Your task to perform on an android device: add a contact Image 0: 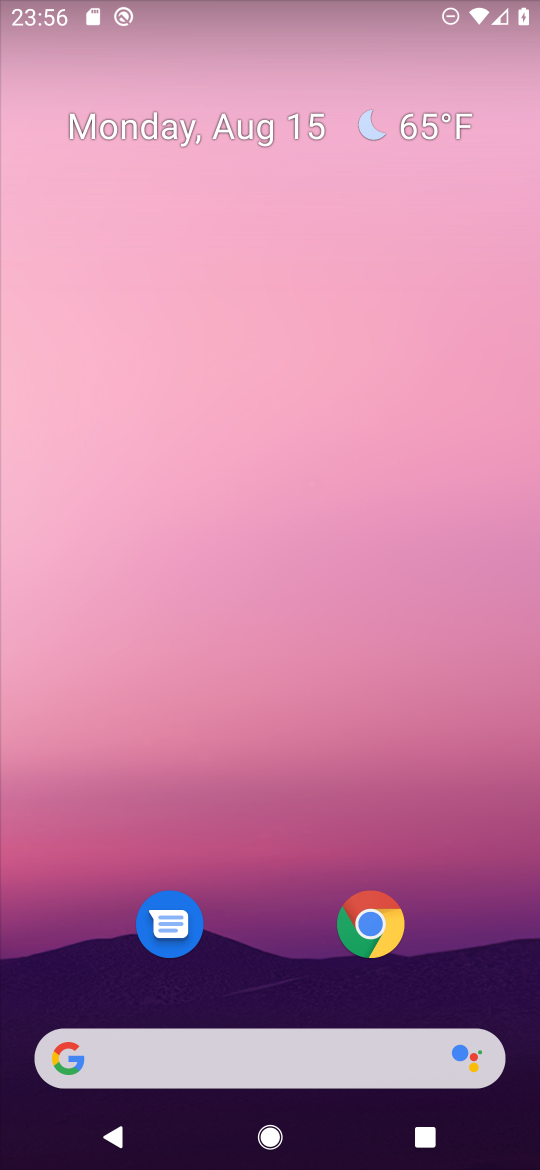
Step 0: drag from (281, 928) to (294, 95)
Your task to perform on an android device: add a contact Image 1: 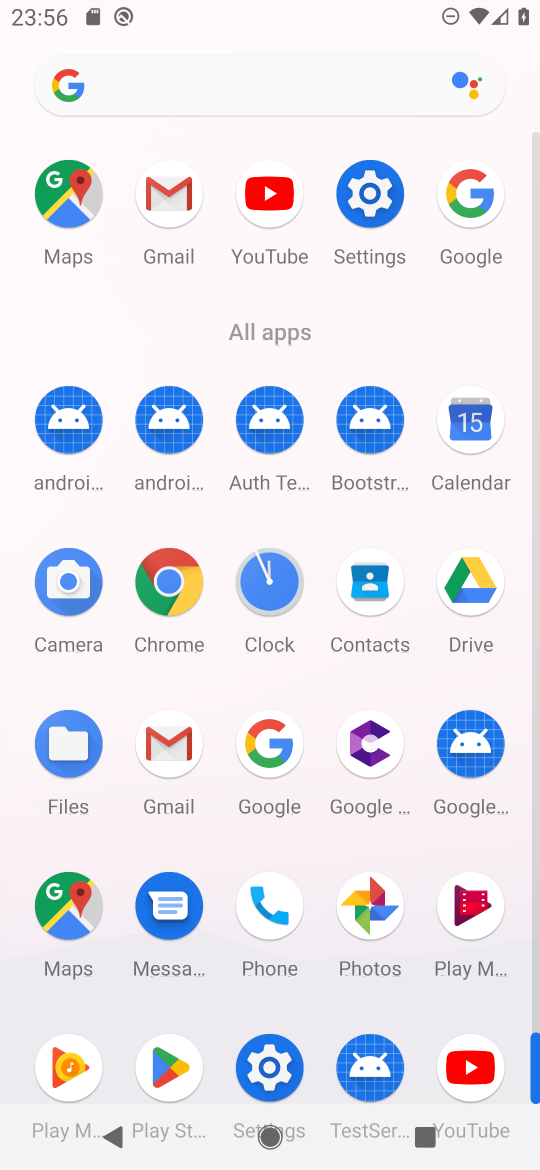
Step 1: click (371, 586)
Your task to perform on an android device: add a contact Image 2: 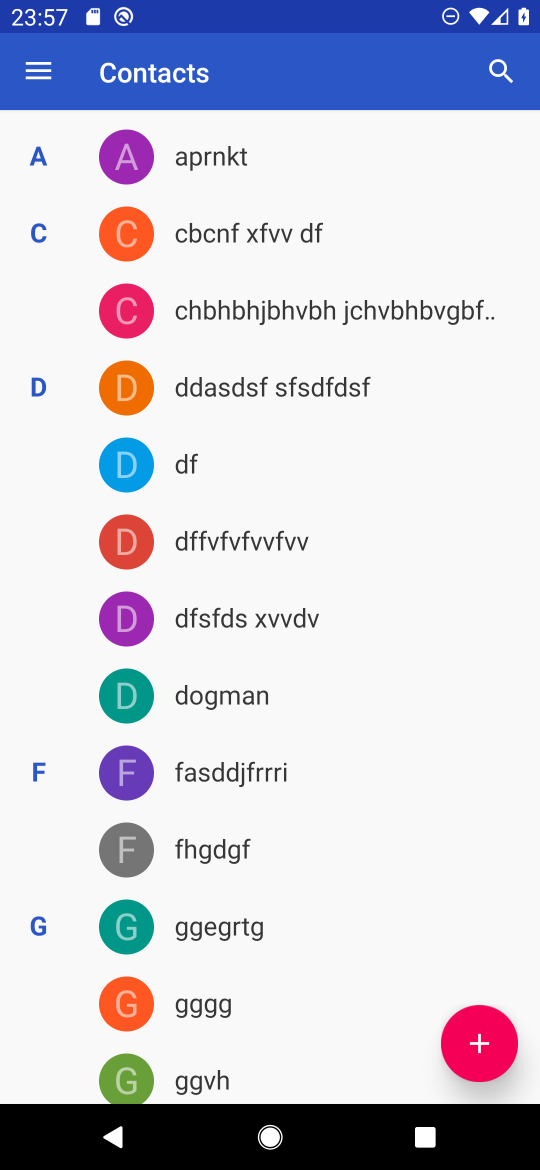
Step 2: click (485, 1056)
Your task to perform on an android device: add a contact Image 3: 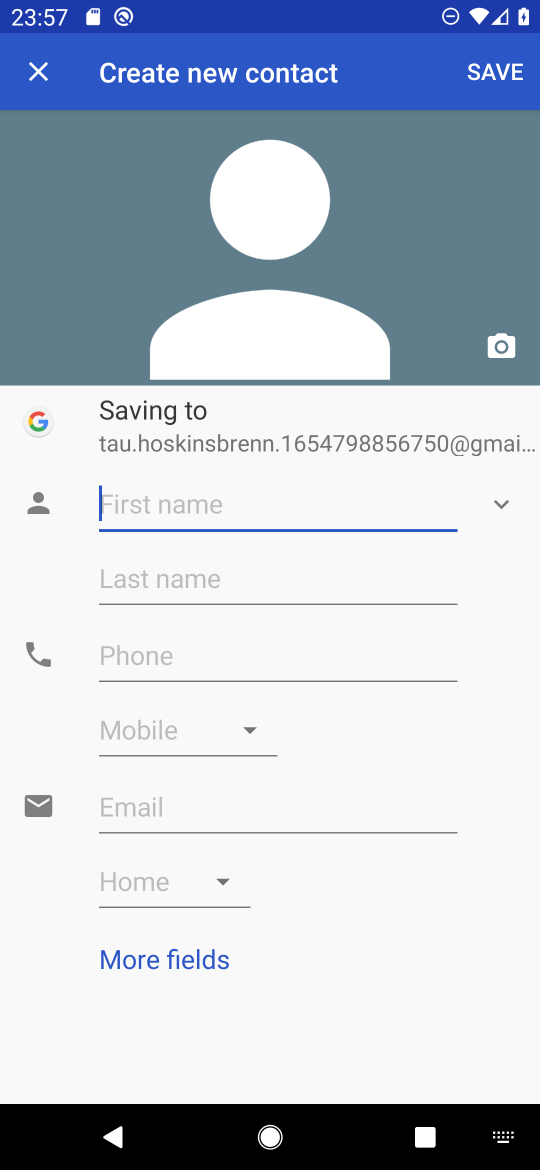
Step 3: type "op"
Your task to perform on an android device: add a contact Image 4: 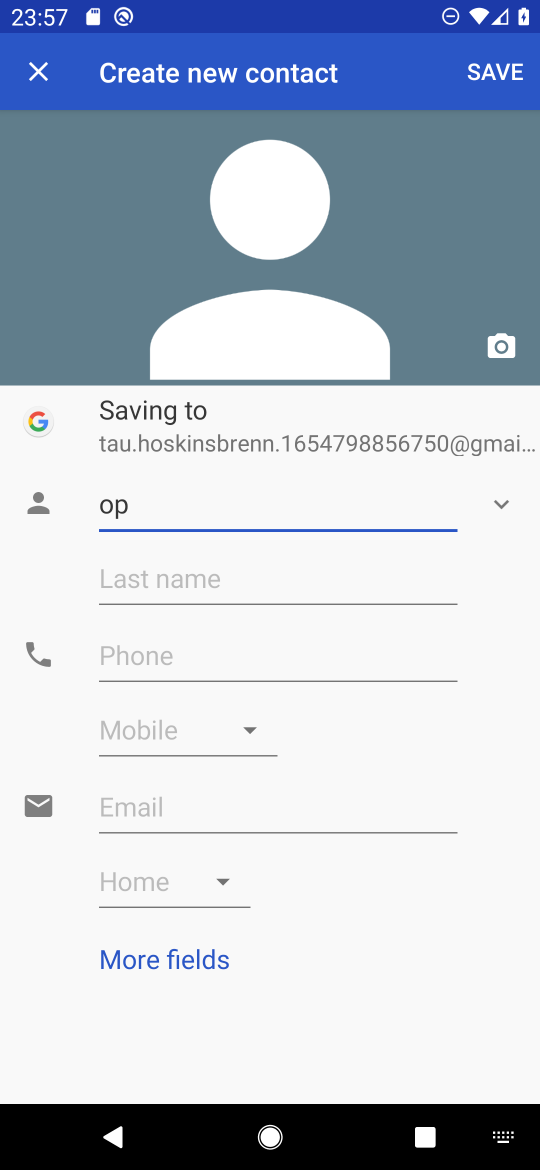
Step 4: click (207, 649)
Your task to perform on an android device: add a contact Image 5: 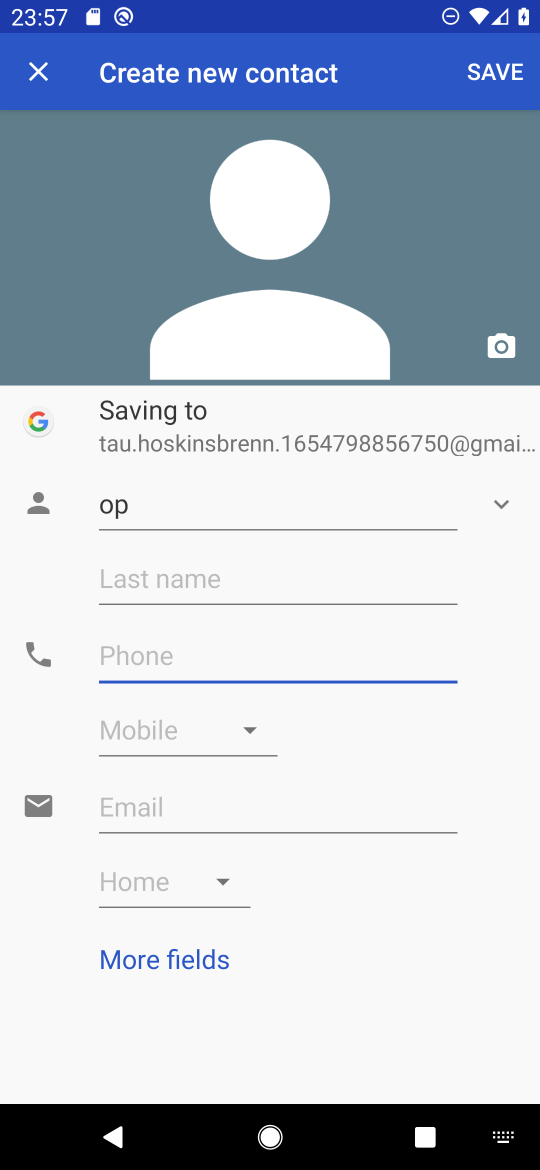
Step 5: type "8888888888"
Your task to perform on an android device: add a contact Image 6: 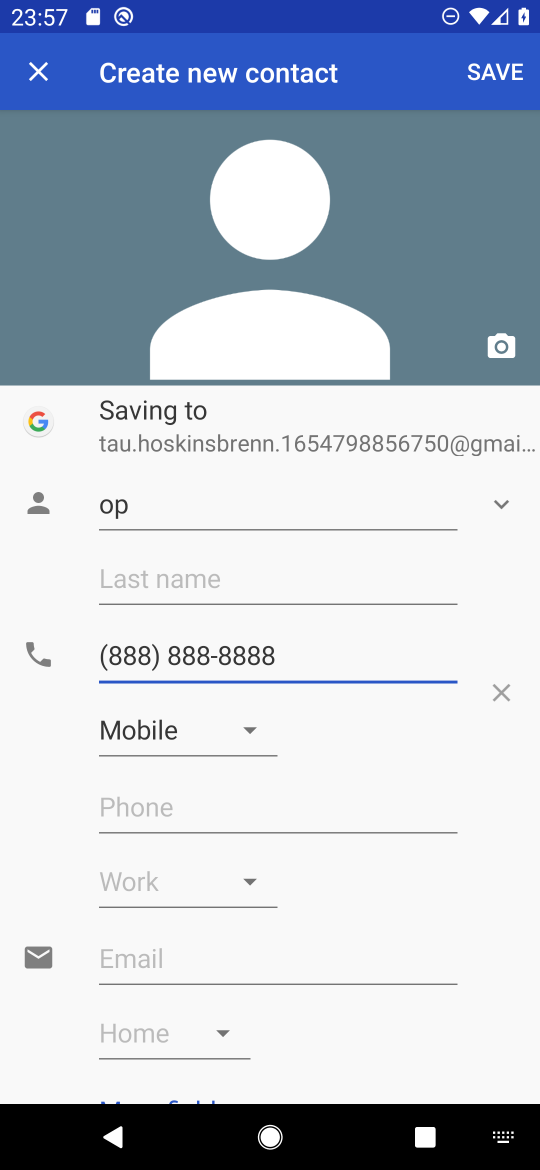
Step 6: click (519, 79)
Your task to perform on an android device: add a contact Image 7: 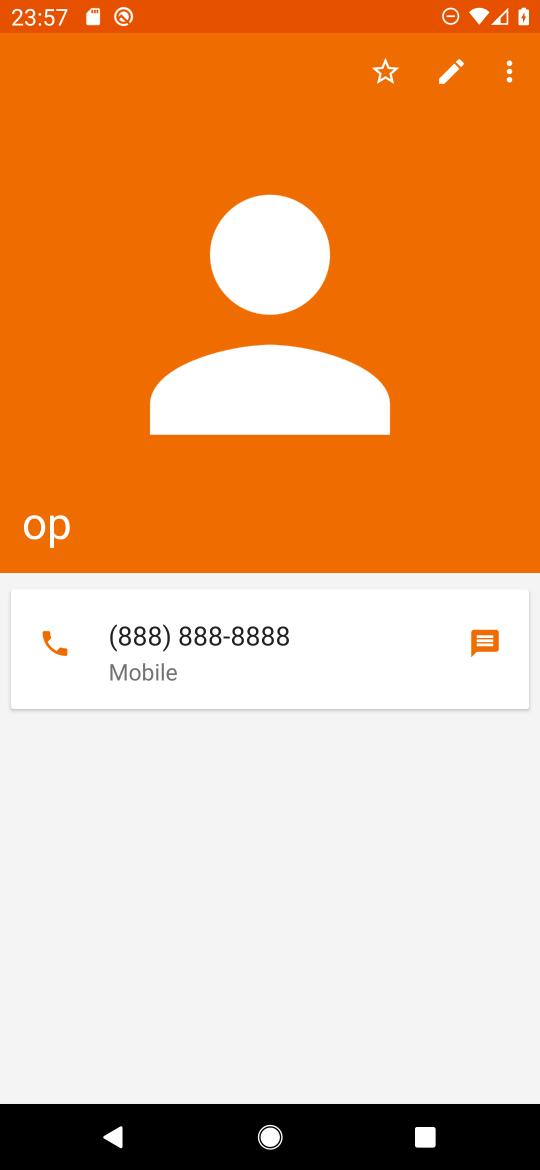
Step 7: task complete